Your task to perform on an android device: turn notification dots on Image 0: 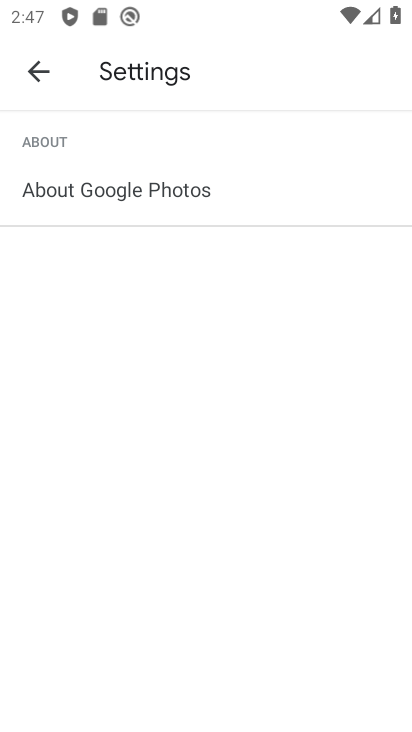
Step 0: press home button
Your task to perform on an android device: turn notification dots on Image 1: 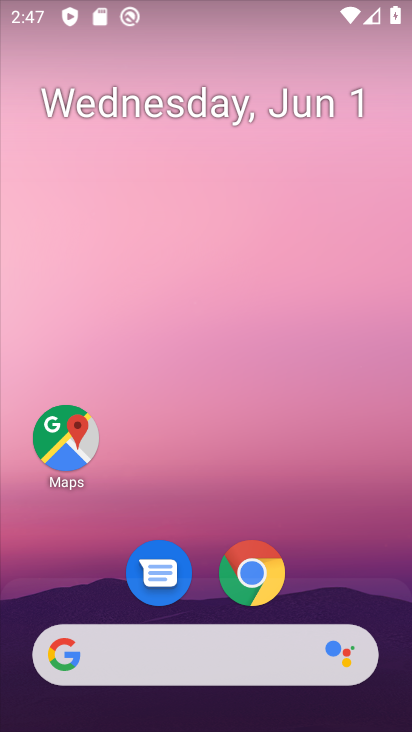
Step 1: drag from (48, 664) to (171, 12)
Your task to perform on an android device: turn notification dots on Image 2: 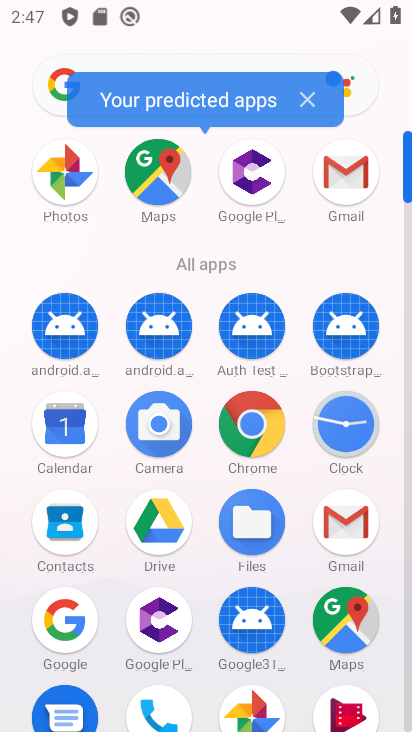
Step 2: drag from (148, 444) to (190, 232)
Your task to perform on an android device: turn notification dots on Image 3: 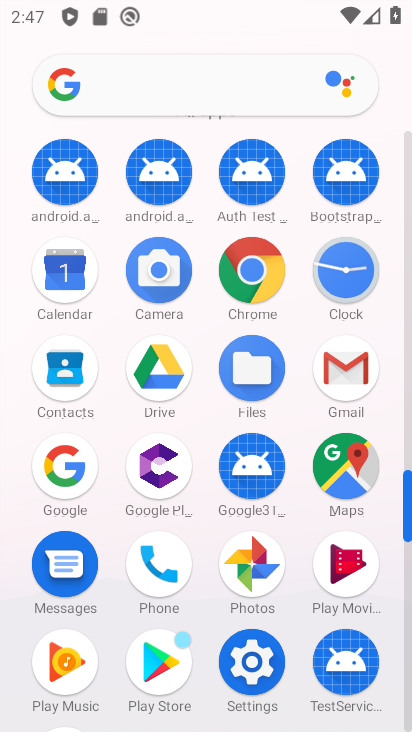
Step 3: click (239, 657)
Your task to perform on an android device: turn notification dots on Image 4: 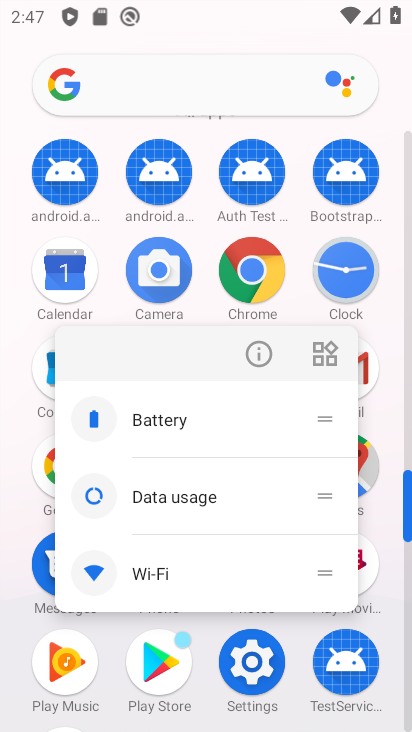
Step 4: click (270, 675)
Your task to perform on an android device: turn notification dots on Image 5: 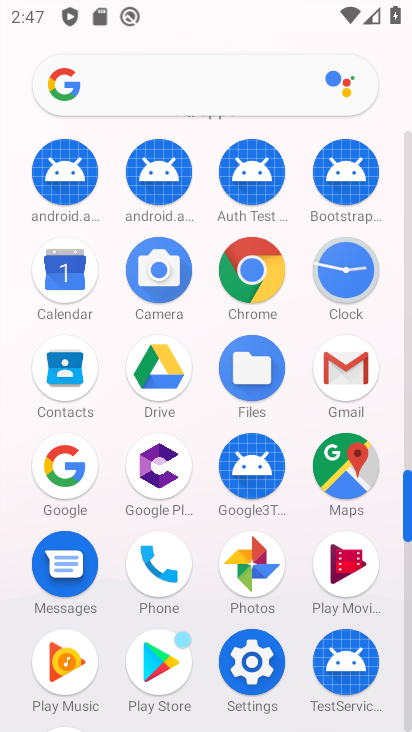
Step 5: click (254, 669)
Your task to perform on an android device: turn notification dots on Image 6: 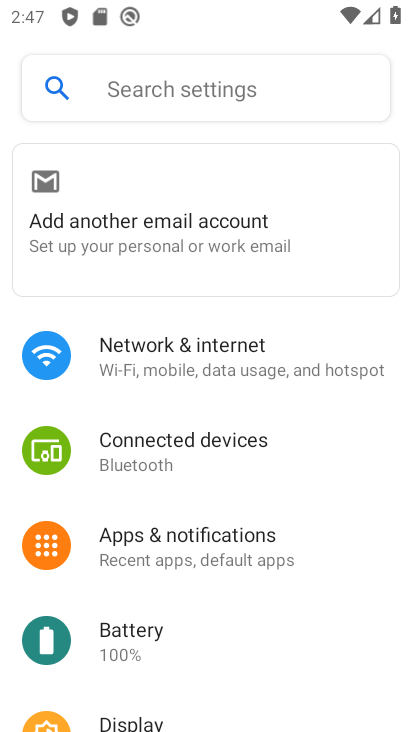
Step 6: click (248, 563)
Your task to perform on an android device: turn notification dots on Image 7: 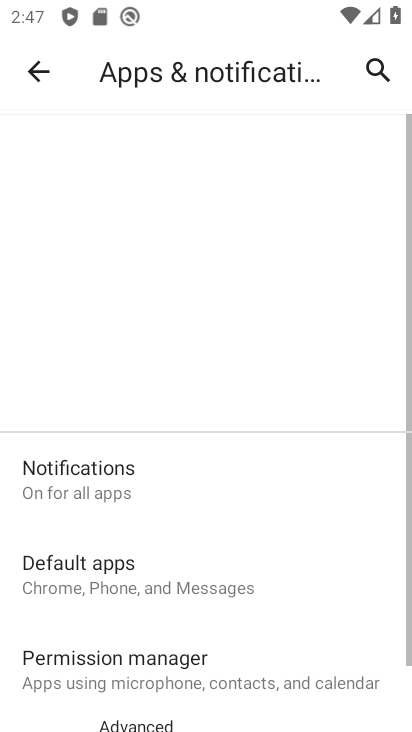
Step 7: drag from (227, 618) to (316, 303)
Your task to perform on an android device: turn notification dots on Image 8: 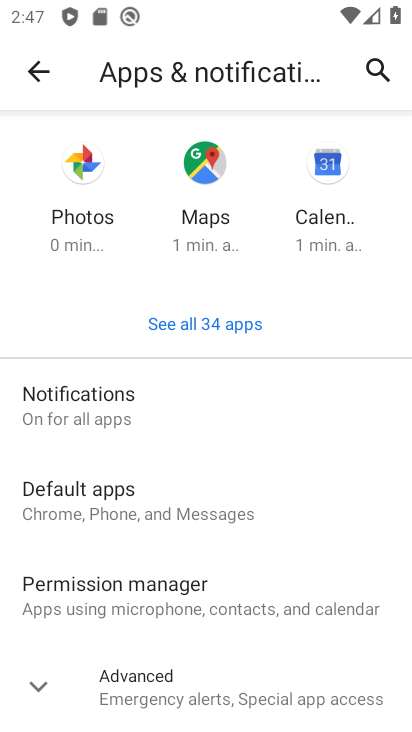
Step 8: click (224, 414)
Your task to perform on an android device: turn notification dots on Image 9: 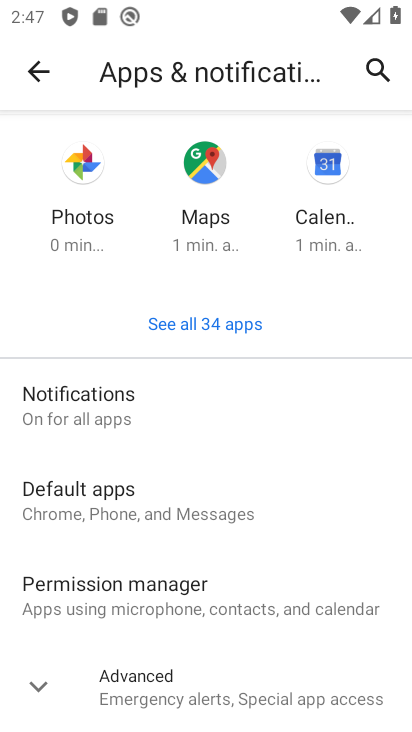
Step 9: drag from (228, 545) to (327, 153)
Your task to perform on an android device: turn notification dots on Image 10: 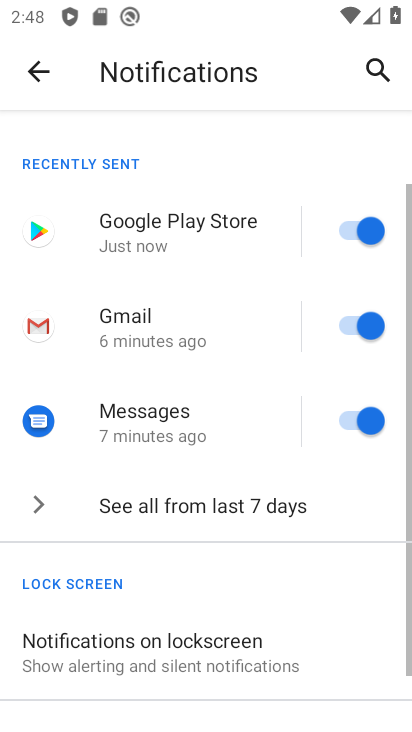
Step 10: drag from (249, 619) to (296, 223)
Your task to perform on an android device: turn notification dots on Image 11: 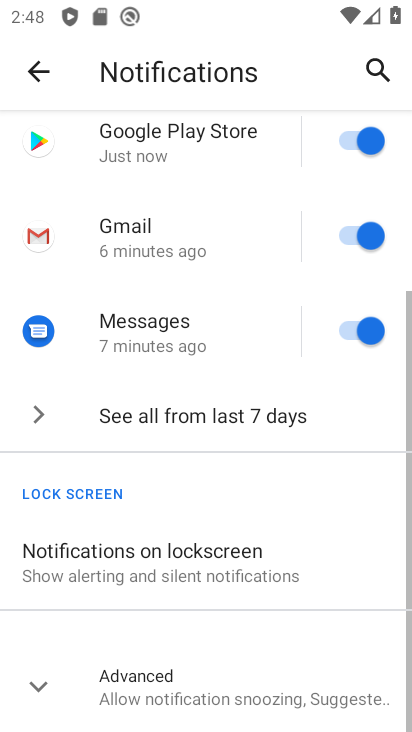
Step 11: click (242, 676)
Your task to perform on an android device: turn notification dots on Image 12: 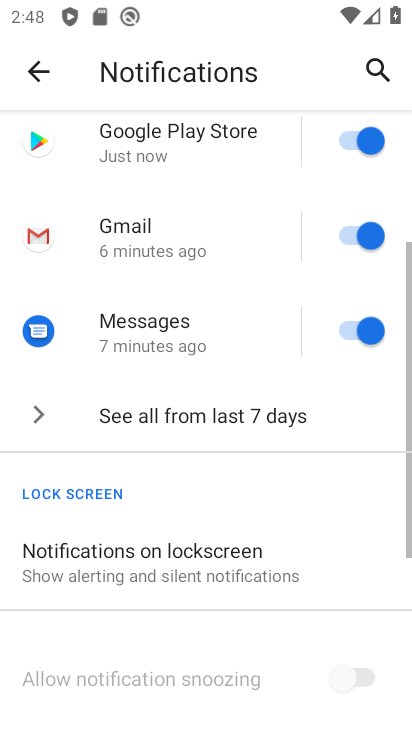
Step 12: task complete